Your task to perform on an android device: Go to CNN.com Image 0: 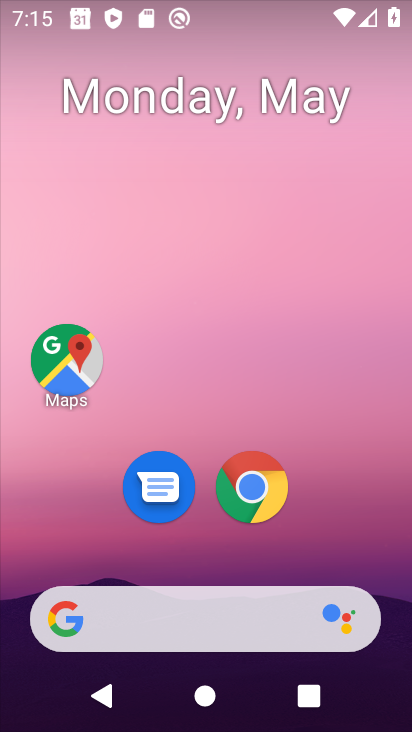
Step 0: press home button
Your task to perform on an android device: Go to CNN.com Image 1: 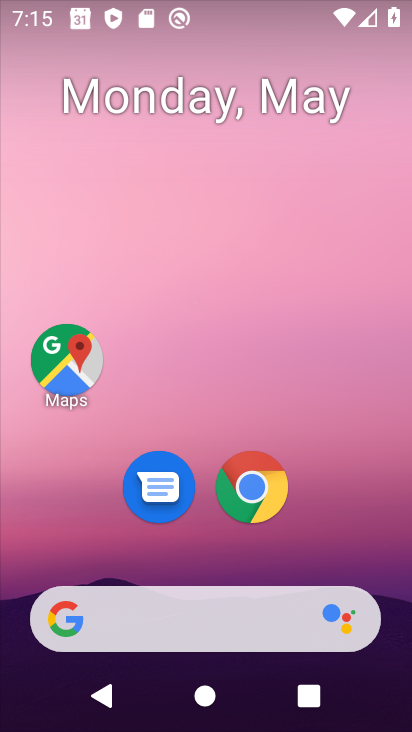
Step 1: drag from (228, 652) to (227, 12)
Your task to perform on an android device: Go to CNN.com Image 2: 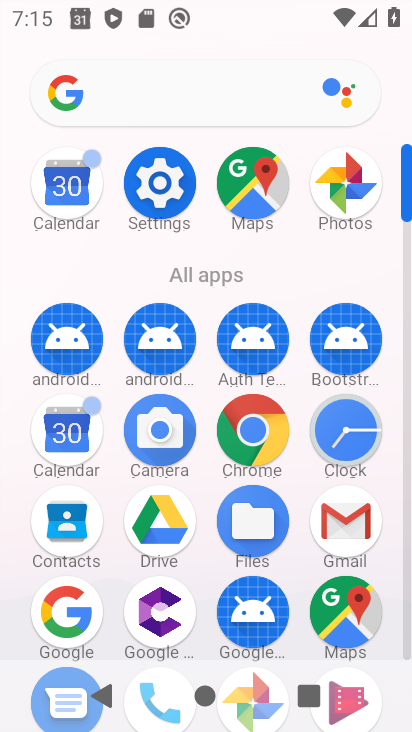
Step 2: click (253, 404)
Your task to perform on an android device: Go to CNN.com Image 3: 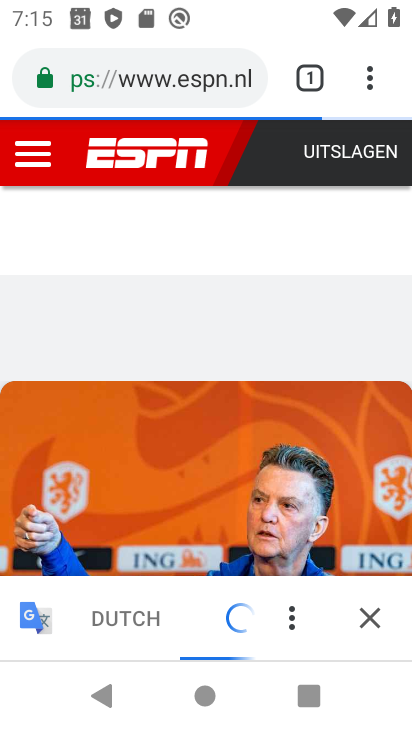
Step 3: click (174, 75)
Your task to perform on an android device: Go to CNN.com Image 4: 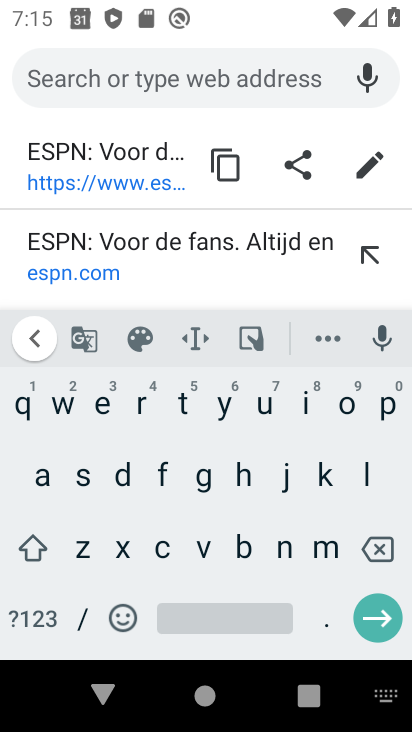
Step 4: click (157, 554)
Your task to perform on an android device: Go to CNN.com Image 5: 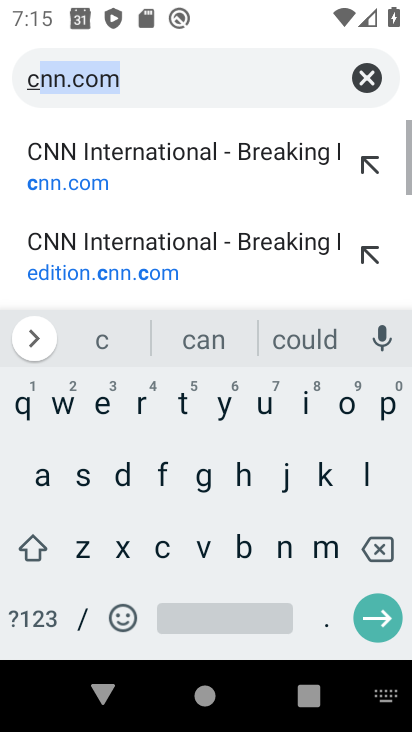
Step 5: click (276, 547)
Your task to perform on an android device: Go to CNN.com Image 6: 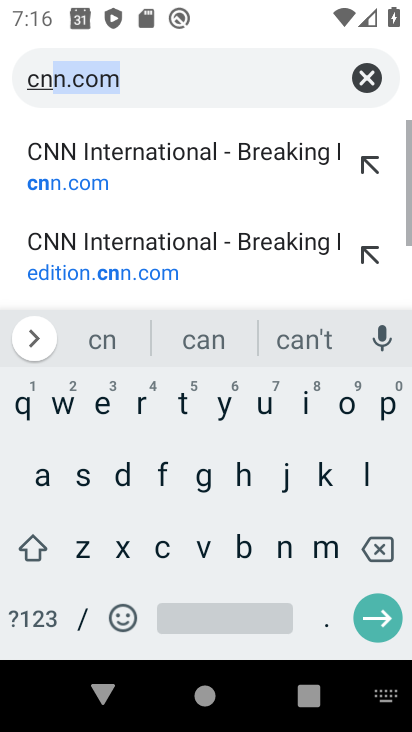
Step 6: click (147, 80)
Your task to perform on an android device: Go to CNN.com Image 7: 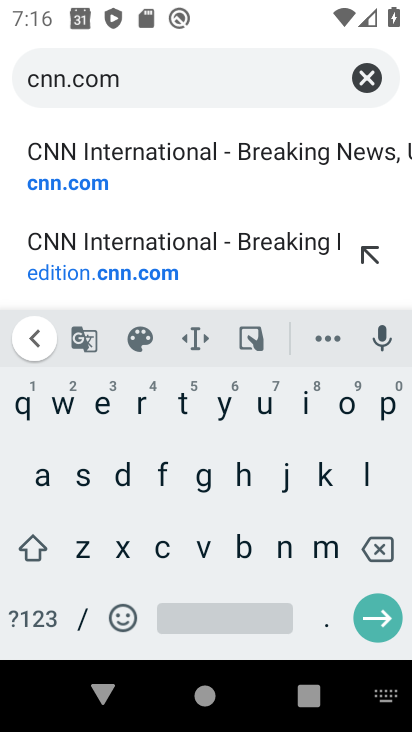
Step 7: click (370, 608)
Your task to perform on an android device: Go to CNN.com Image 8: 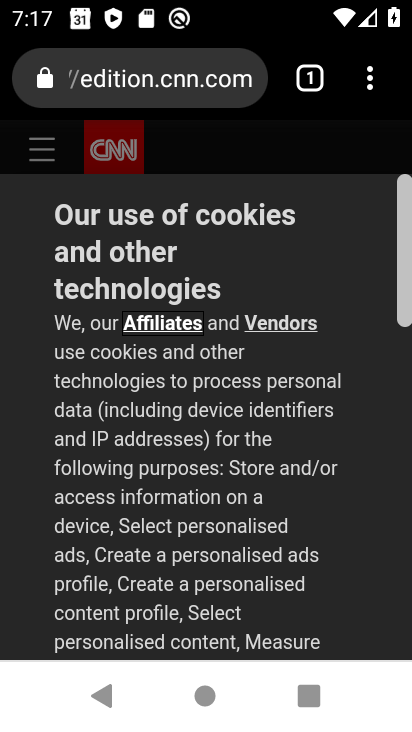
Step 8: task complete